Your task to perform on an android device: turn on showing notifications on the lock screen Image 0: 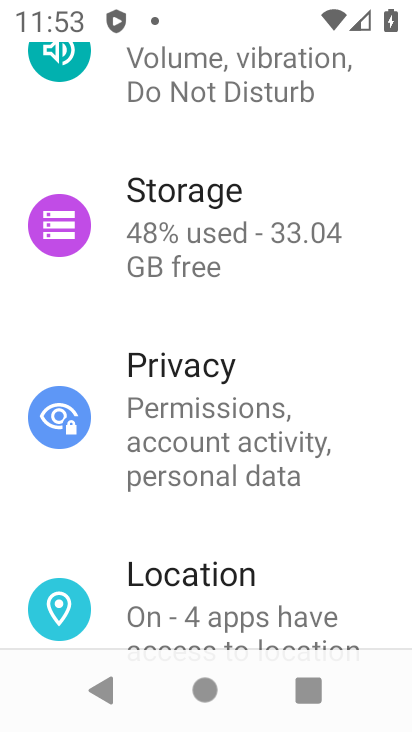
Step 0: drag from (220, 571) to (212, 699)
Your task to perform on an android device: turn on showing notifications on the lock screen Image 1: 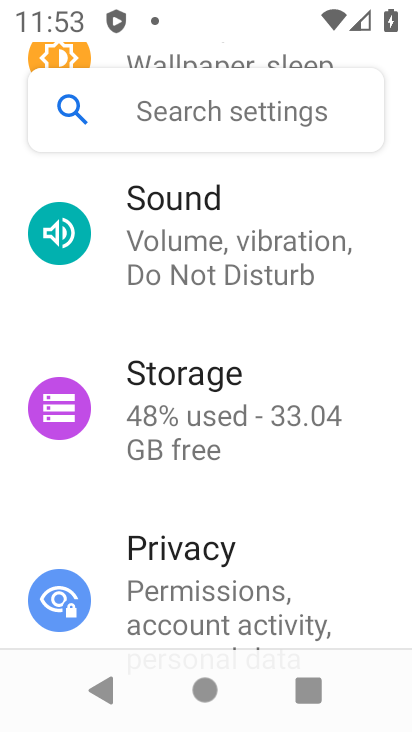
Step 1: drag from (248, 292) to (220, 718)
Your task to perform on an android device: turn on showing notifications on the lock screen Image 2: 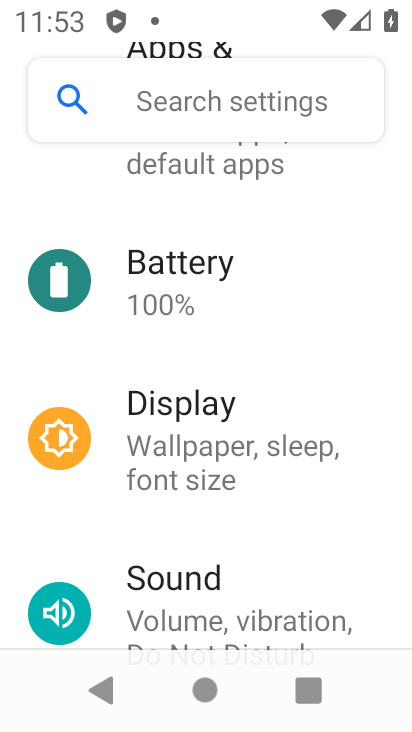
Step 2: drag from (247, 276) to (235, 636)
Your task to perform on an android device: turn on showing notifications on the lock screen Image 3: 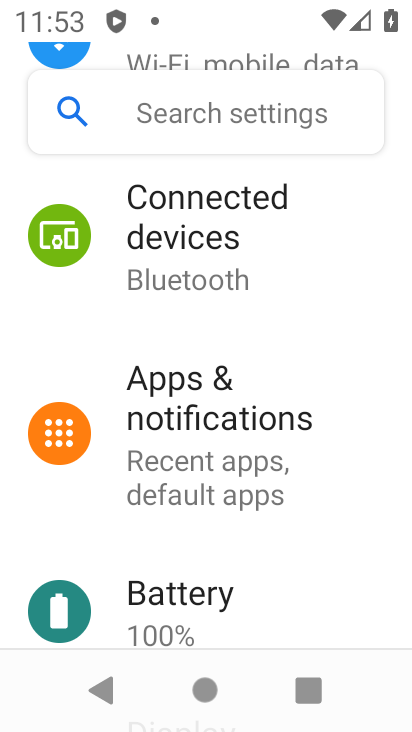
Step 3: click (163, 427)
Your task to perform on an android device: turn on showing notifications on the lock screen Image 4: 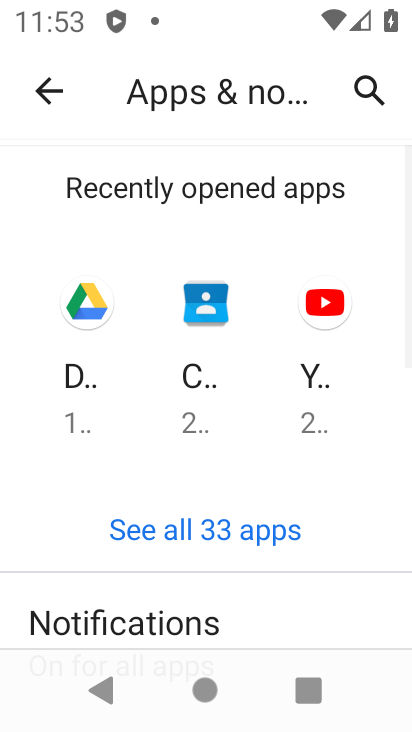
Step 4: drag from (202, 641) to (269, 358)
Your task to perform on an android device: turn on showing notifications on the lock screen Image 5: 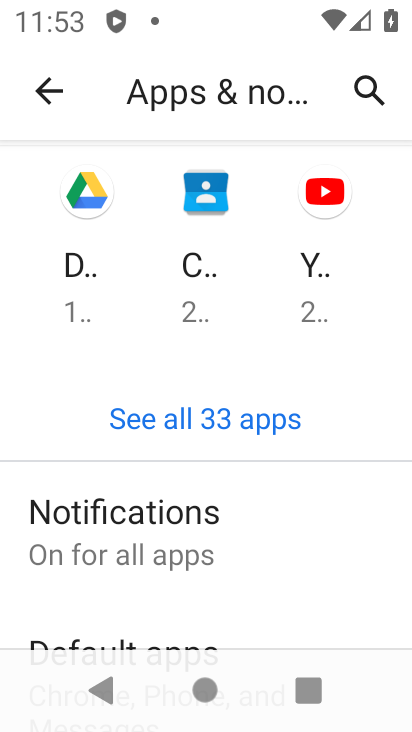
Step 5: click (210, 557)
Your task to perform on an android device: turn on showing notifications on the lock screen Image 6: 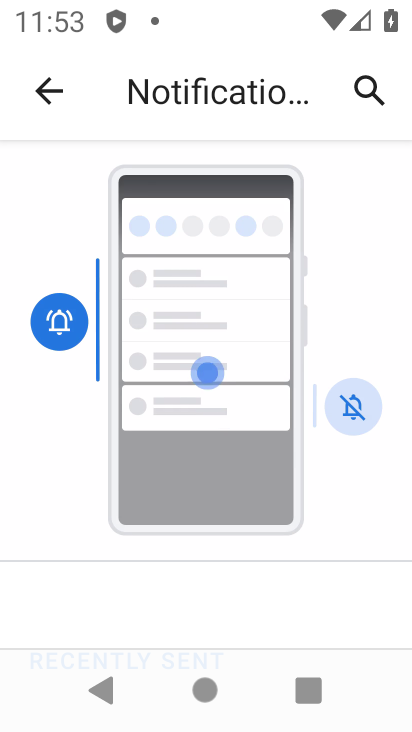
Step 6: drag from (230, 624) to (322, 213)
Your task to perform on an android device: turn on showing notifications on the lock screen Image 7: 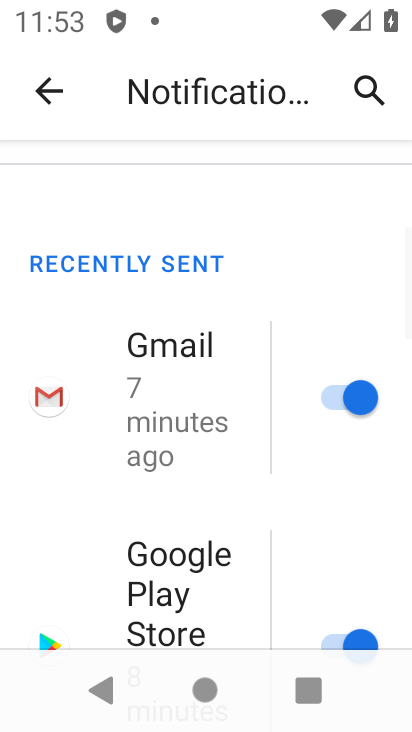
Step 7: drag from (183, 585) to (263, 270)
Your task to perform on an android device: turn on showing notifications on the lock screen Image 8: 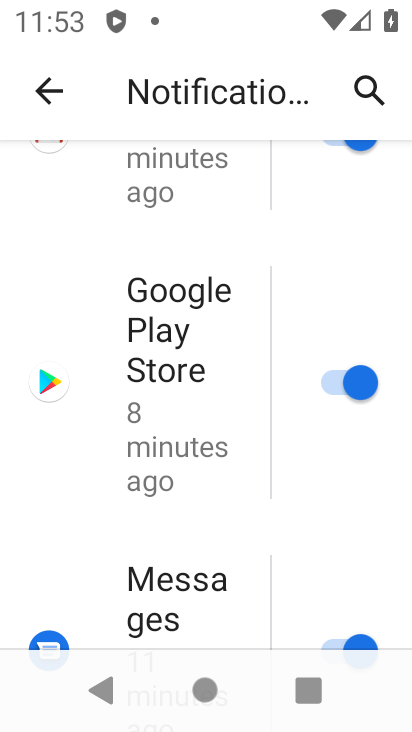
Step 8: drag from (103, 636) to (252, 126)
Your task to perform on an android device: turn on showing notifications on the lock screen Image 9: 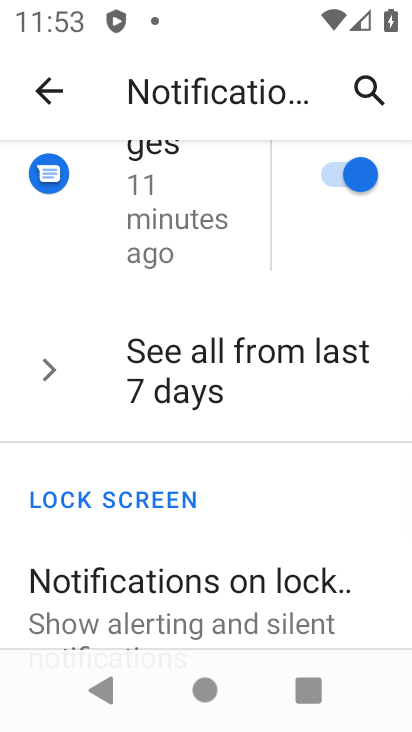
Step 9: drag from (187, 534) to (212, 324)
Your task to perform on an android device: turn on showing notifications on the lock screen Image 10: 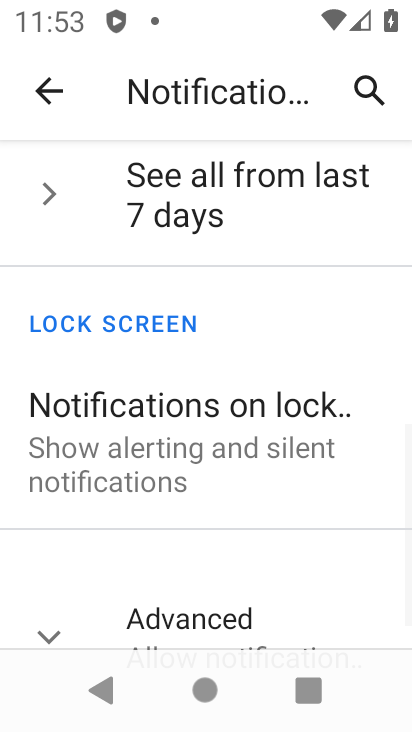
Step 10: click (200, 441)
Your task to perform on an android device: turn on showing notifications on the lock screen Image 11: 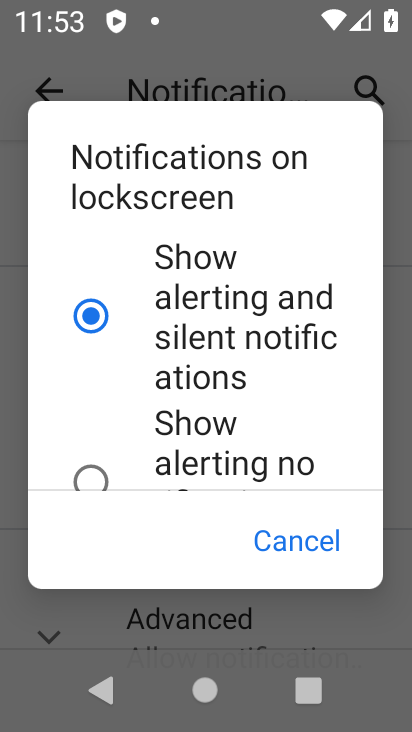
Step 11: task complete